Your task to perform on an android device: toggle translation in the chrome app Image 0: 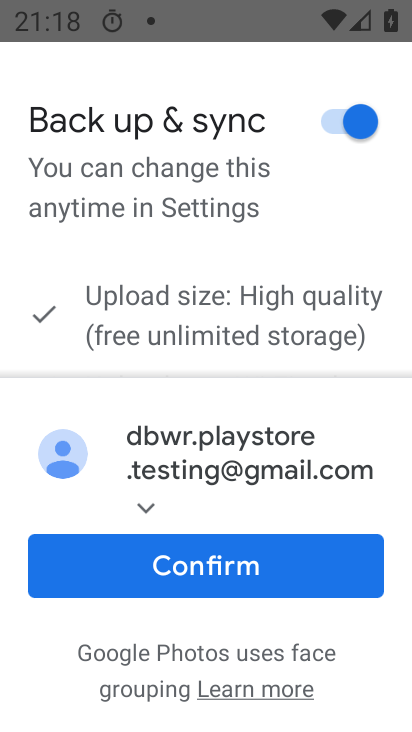
Step 0: press home button
Your task to perform on an android device: toggle translation in the chrome app Image 1: 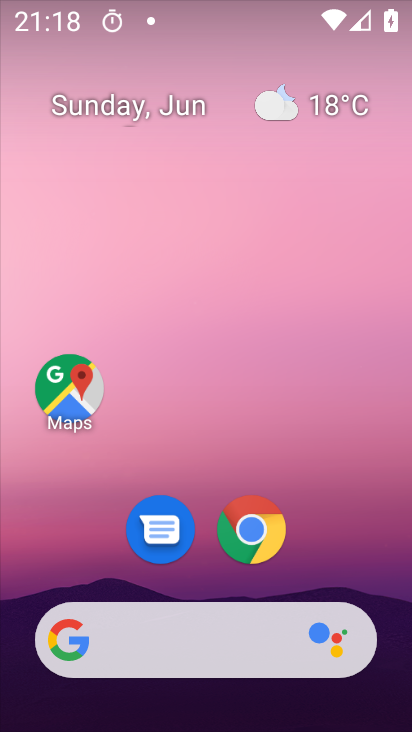
Step 1: click (247, 530)
Your task to perform on an android device: toggle translation in the chrome app Image 2: 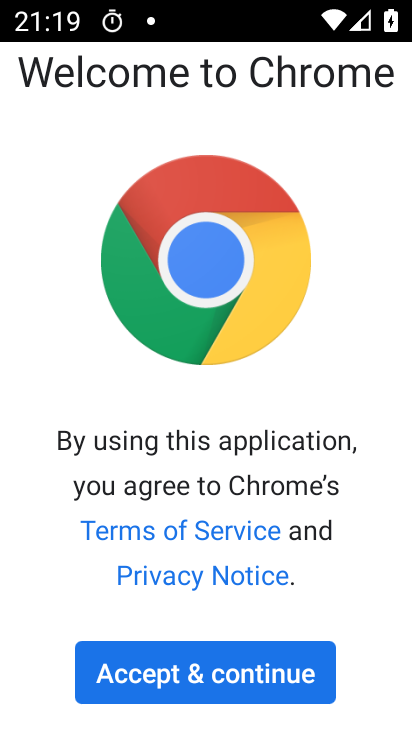
Step 2: click (217, 686)
Your task to perform on an android device: toggle translation in the chrome app Image 3: 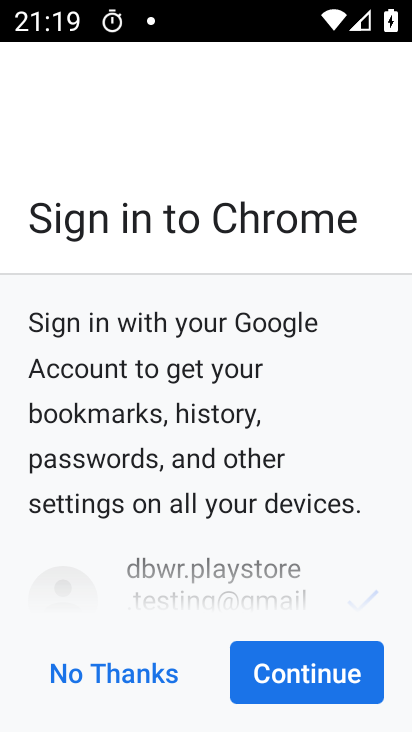
Step 3: click (301, 674)
Your task to perform on an android device: toggle translation in the chrome app Image 4: 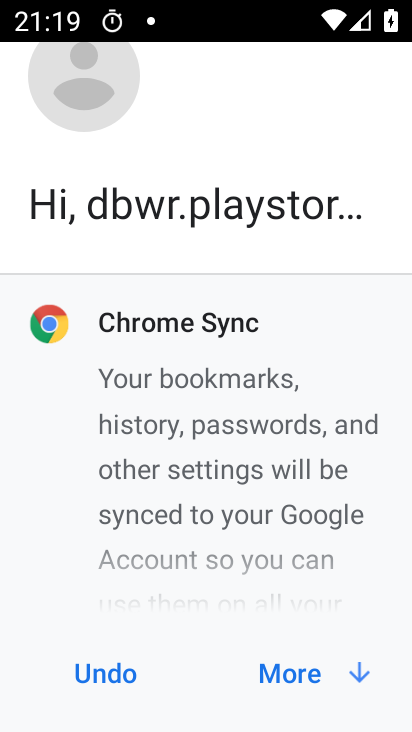
Step 4: click (302, 671)
Your task to perform on an android device: toggle translation in the chrome app Image 5: 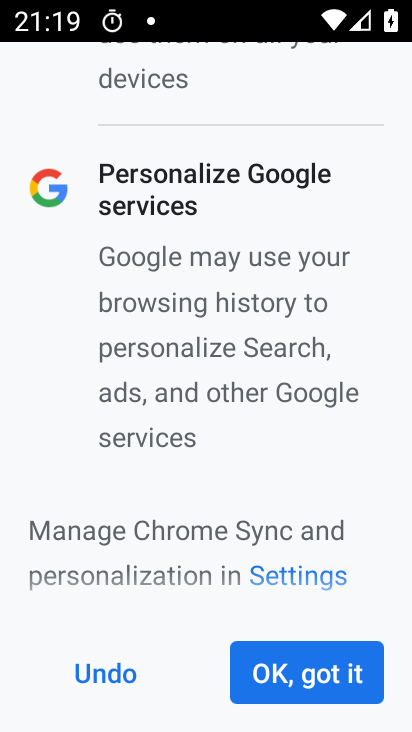
Step 5: click (304, 669)
Your task to perform on an android device: toggle translation in the chrome app Image 6: 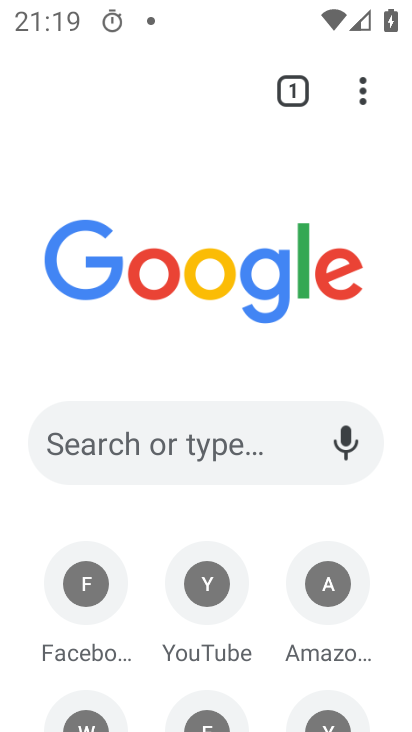
Step 6: click (361, 104)
Your task to perform on an android device: toggle translation in the chrome app Image 7: 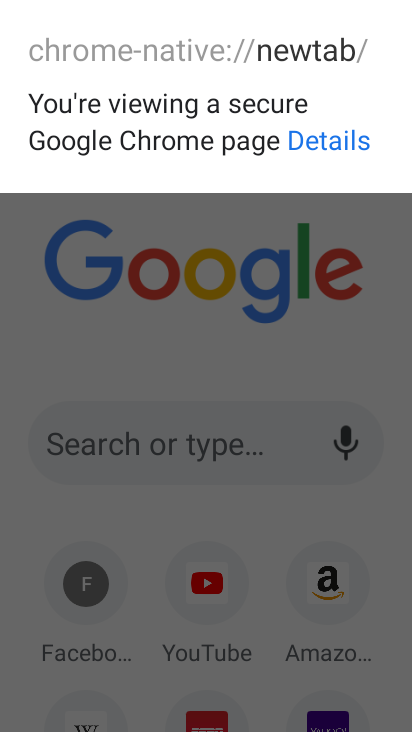
Step 7: click (330, 265)
Your task to perform on an android device: toggle translation in the chrome app Image 8: 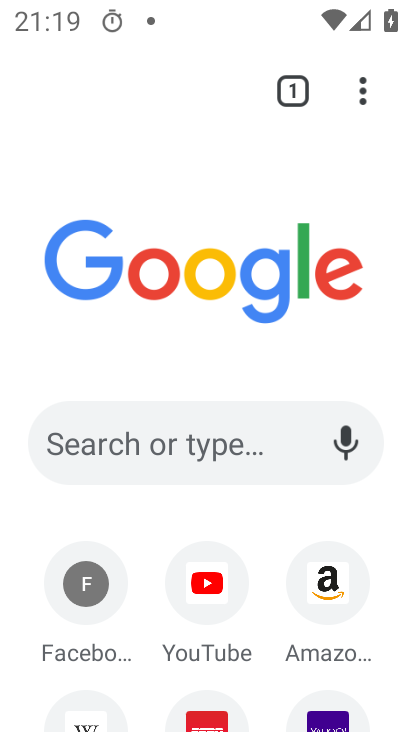
Step 8: click (351, 91)
Your task to perform on an android device: toggle translation in the chrome app Image 9: 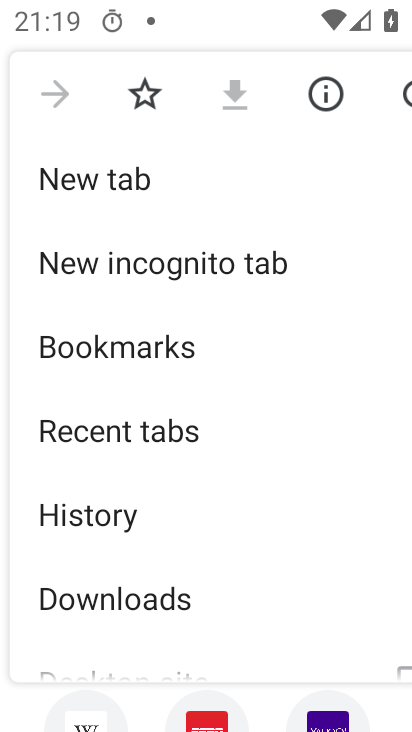
Step 9: drag from (254, 587) to (332, 271)
Your task to perform on an android device: toggle translation in the chrome app Image 10: 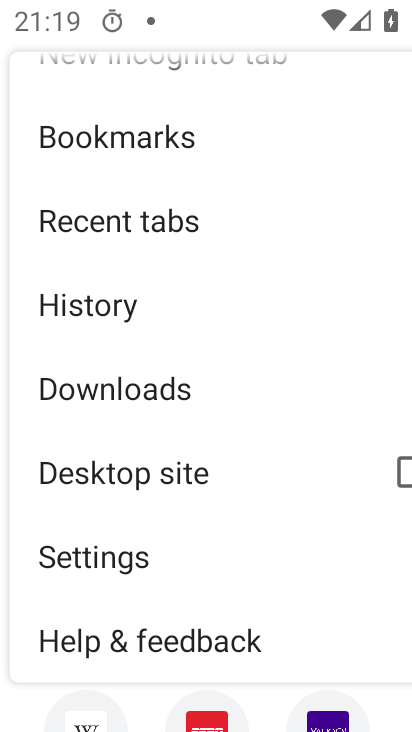
Step 10: click (112, 547)
Your task to perform on an android device: toggle translation in the chrome app Image 11: 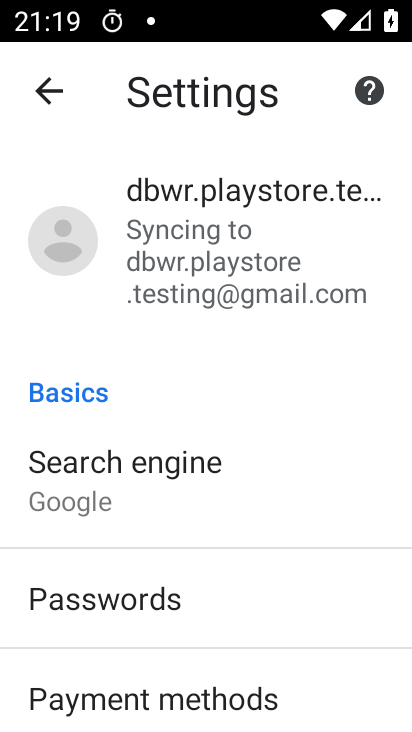
Step 11: drag from (159, 679) to (243, 412)
Your task to perform on an android device: toggle translation in the chrome app Image 12: 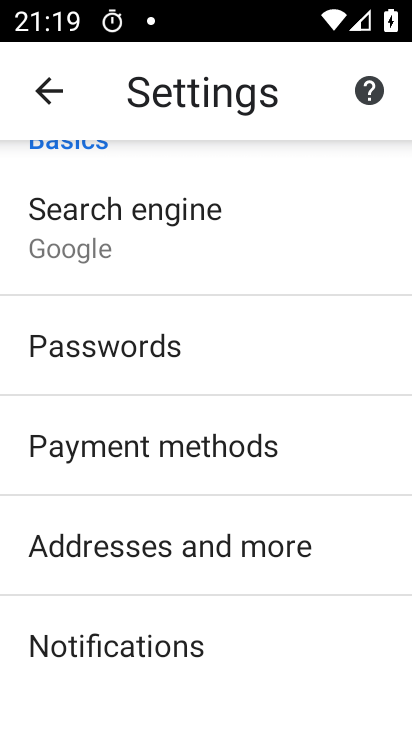
Step 12: drag from (184, 699) to (160, 357)
Your task to perform on an android device: toggle translation in the chrome app Image 13: 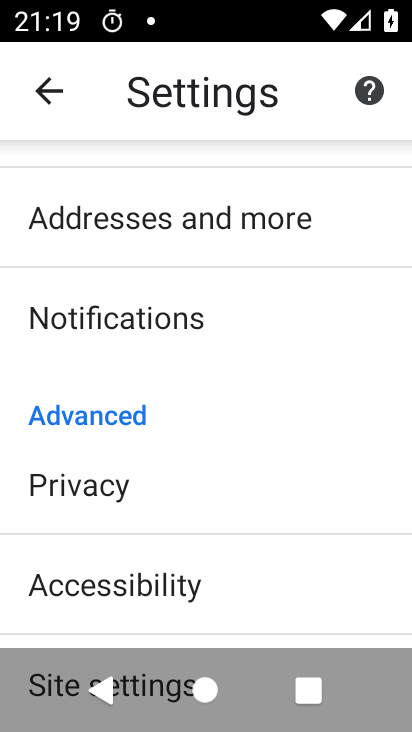
Step 13: drag from (178, 575) to (164, 337)
Your task to perform on an android device: toggle translation in the chrome app Image 14: 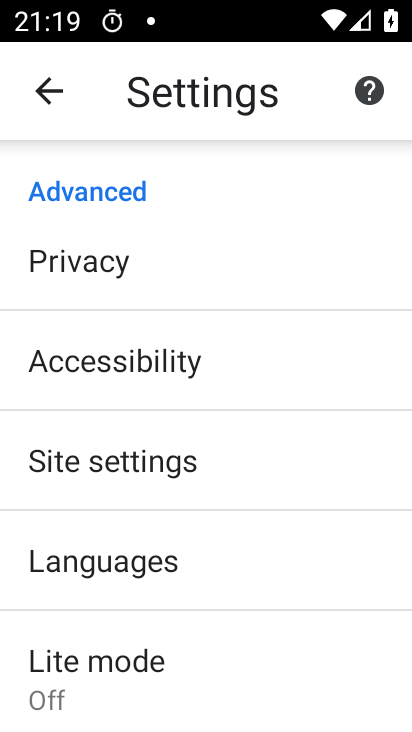
Step 14: click (172, 599)
Your task to perform on an android device: toggle translation in the chrome app Image 15: 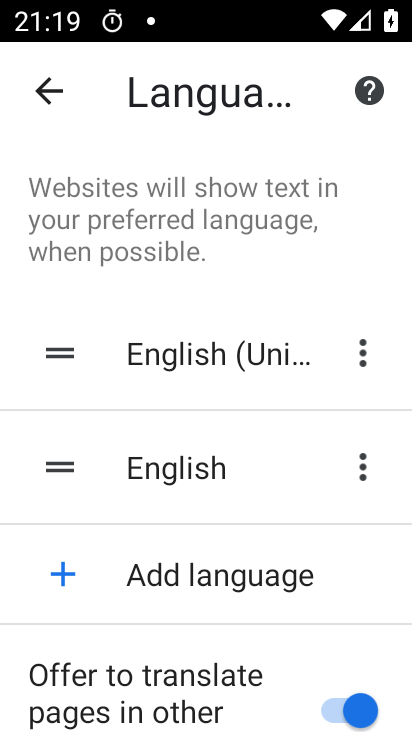
Step 15: click (361, 698)
Your task to perform on an android device: toggle translation in the chrome app Image 16: 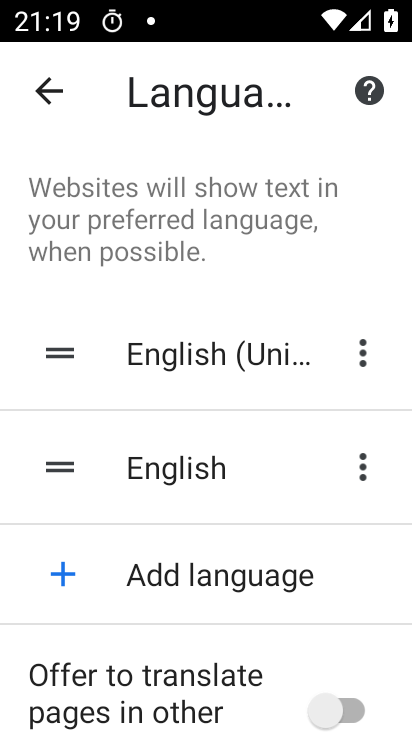
Step 16: task complete